Your task to perform on an android device: turn off translation in the chrome app Image 0: 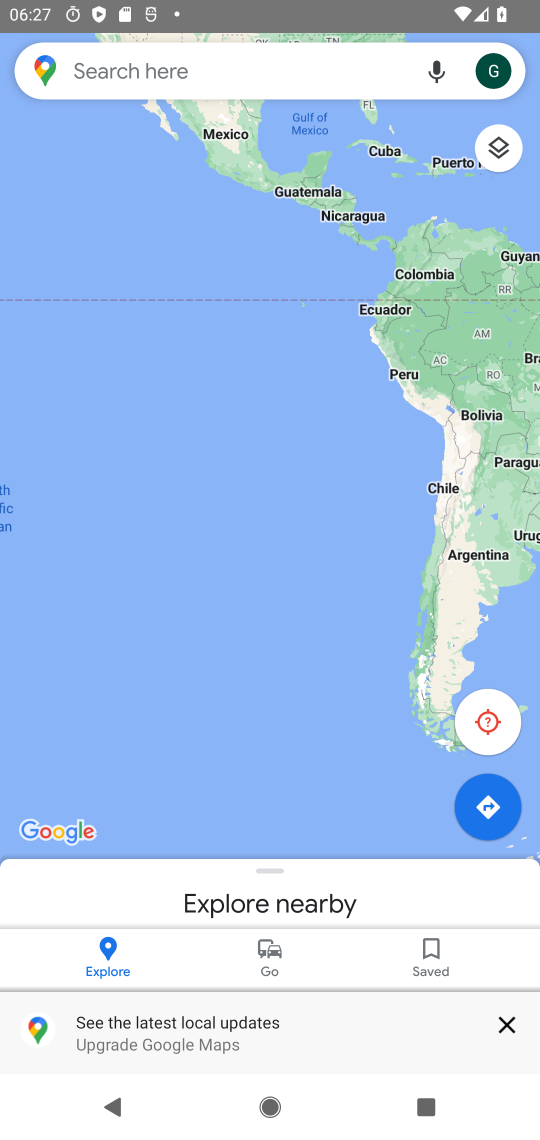
Step 0: press home button
Your task to perform on an android device: turn off translation in the chrome app Image 1: 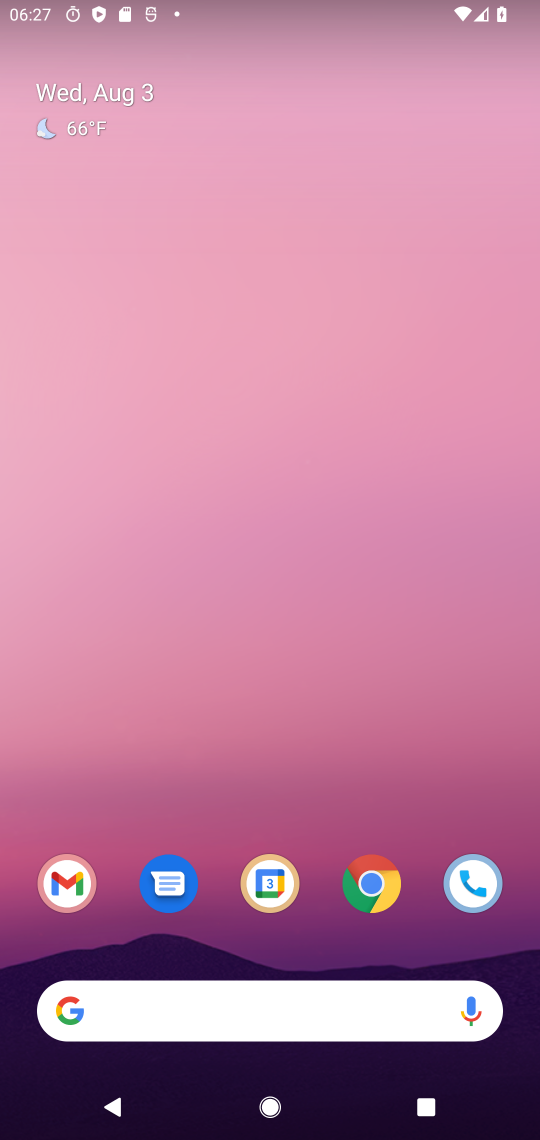
Step 1: click (365, 884)
Your task to perform on an android device: turn off translation in the chrome app Image 2: 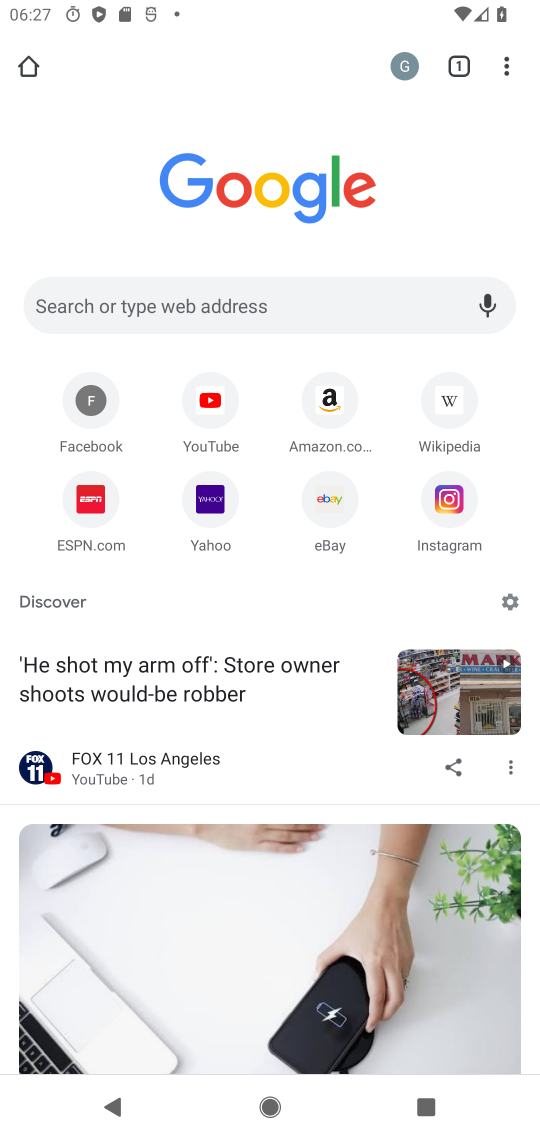
Step 2: click (503, 68)
Your task to perform on an android device: turn off translation in the chrome app Image 3: 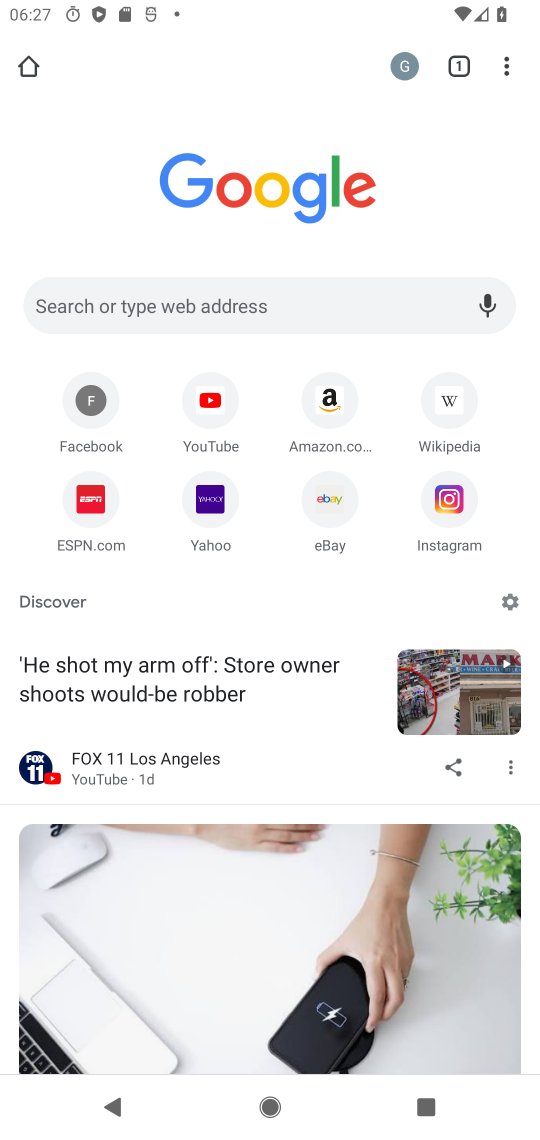
Step 3: click (503, 68)
Your task to perform on an android device: turn off translation in the chrome app Image 4: 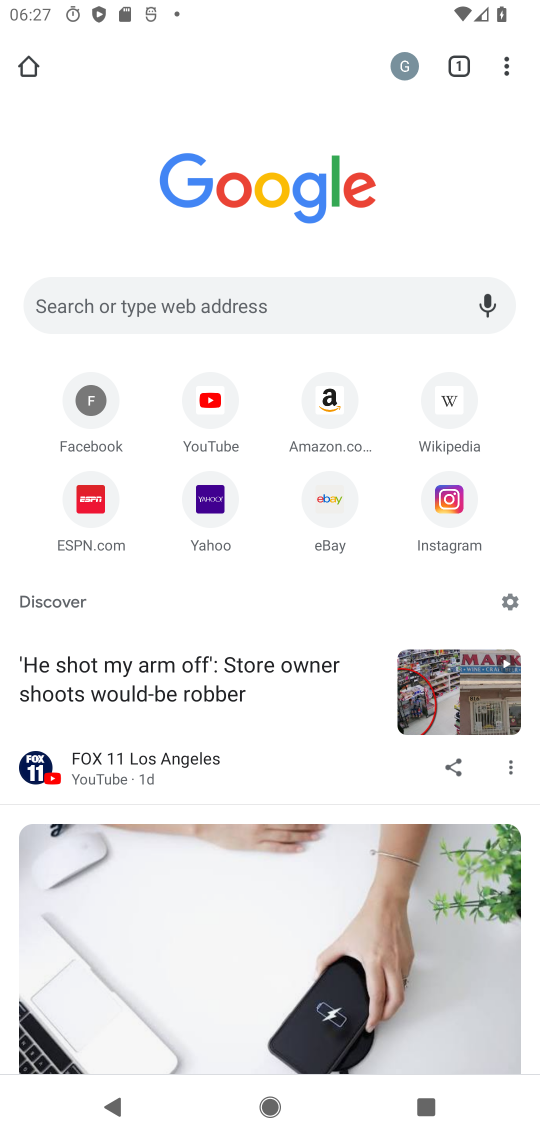
Step 4: click (504, 68)
Your task to perform on an android device: turn off translation in the chrome app Image 5: 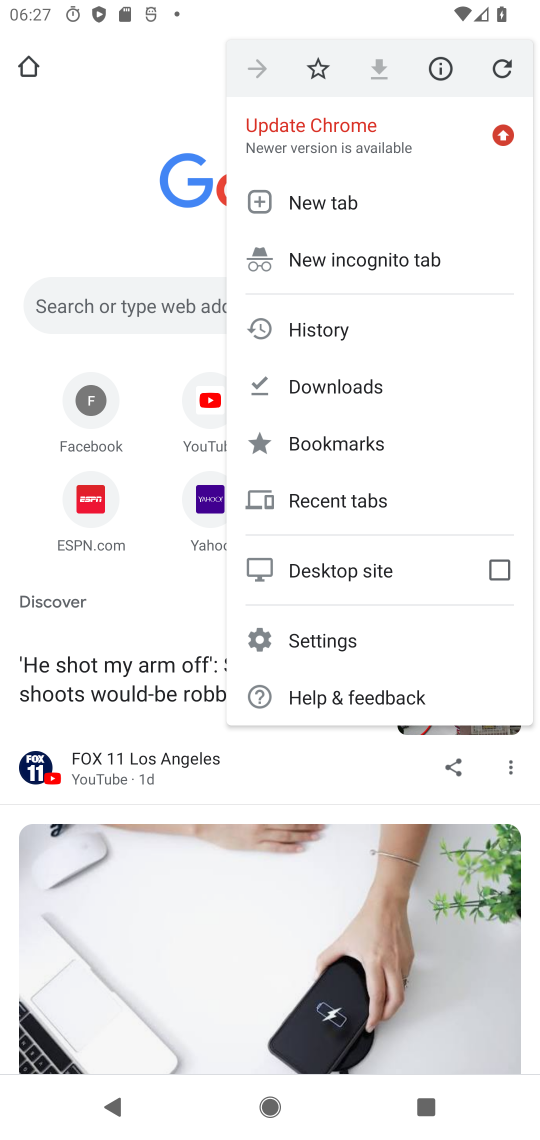
Step 5: click (313, 631)
Your task to perform on an android device: turn off translation in the chrome app Image 6: 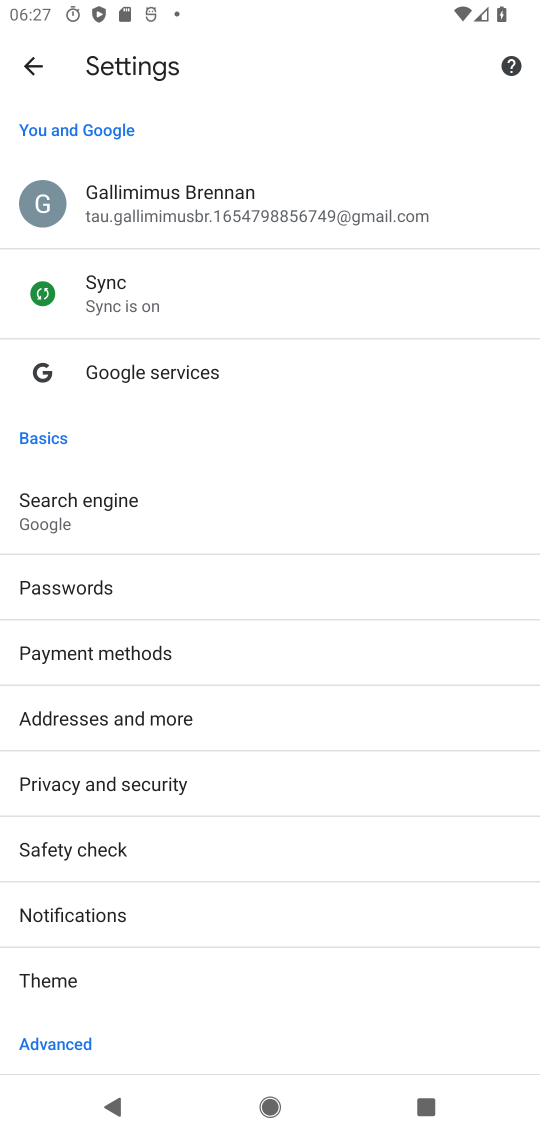
Step 6: drag from (104, 1018) to (251, 509)
Your task to perform on an android device: turn off translation in the chrome app Image 7: 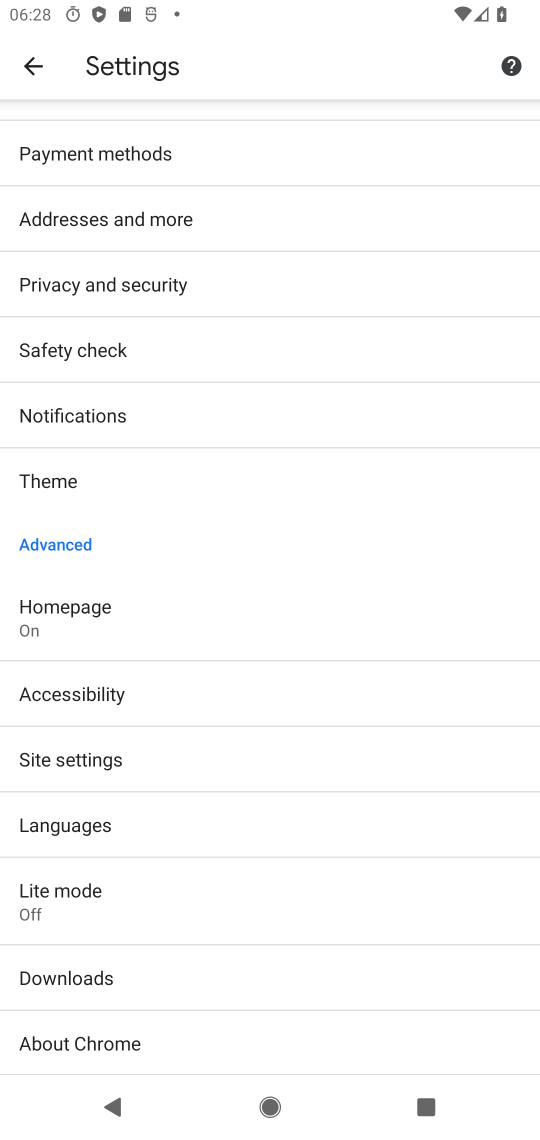
Step 7: click (84, 829)
Your task to perform on an android device: turn off translation in the chrome app Image 8: 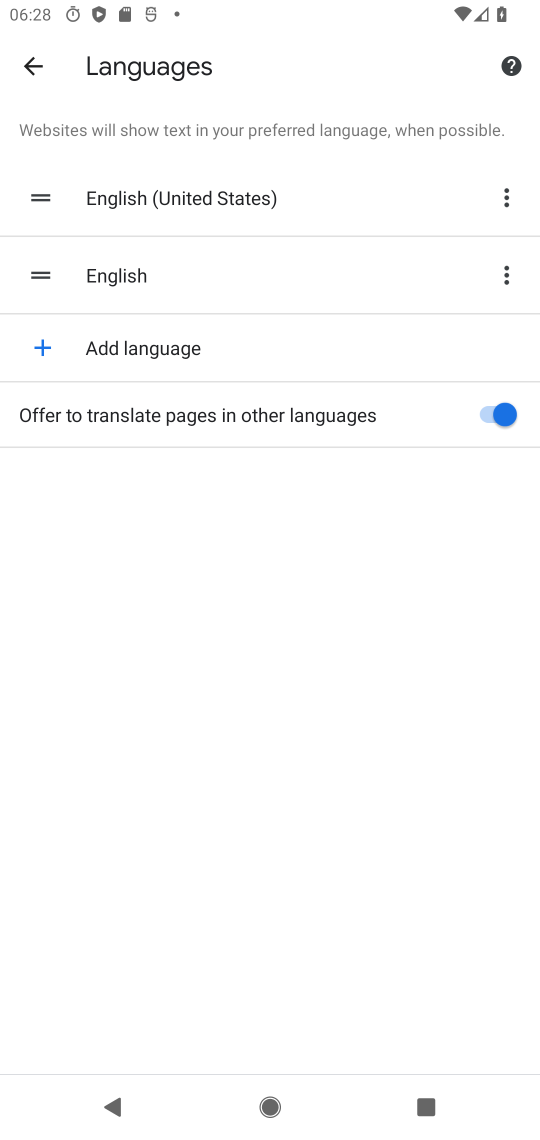
Step 8: click (490, 416)
Your task to perform on an android device: turn off translation in the chrome app Image 9: 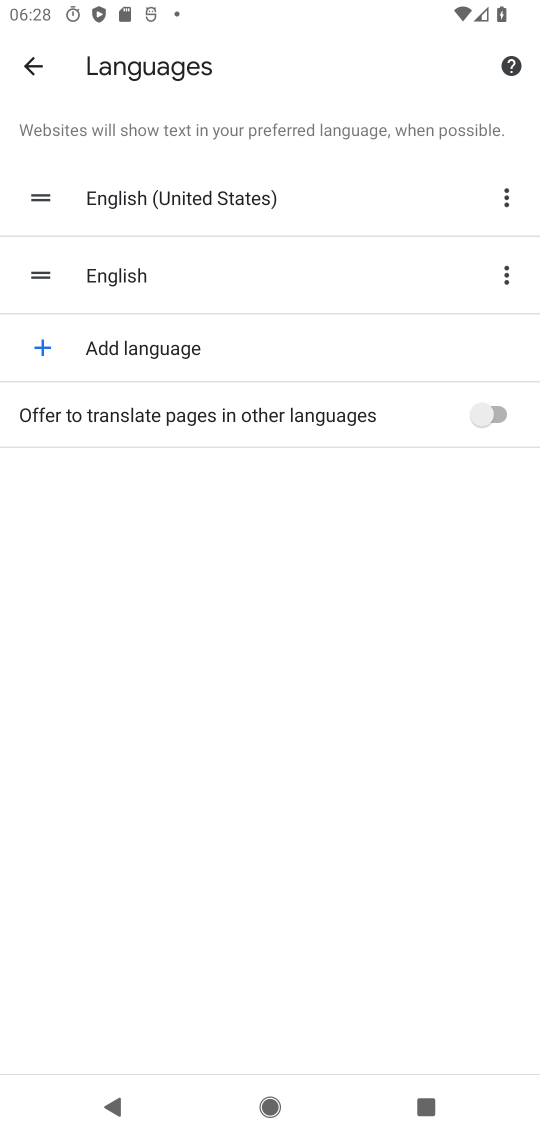
Step 9: task complete